Your task to perform on an android device: turn on notifications settings in the gmail app Image 0: 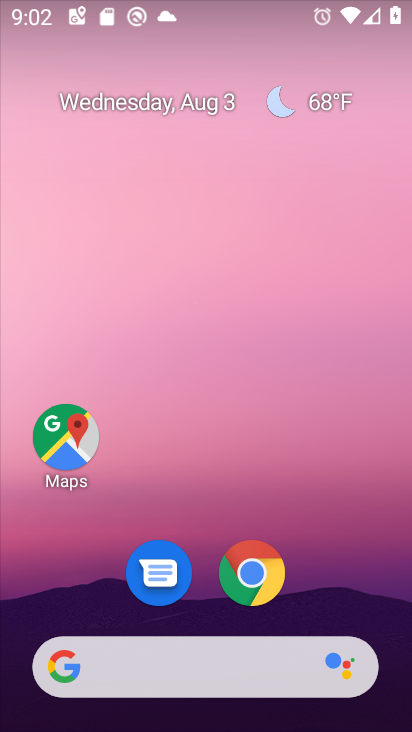
Step 0: drag from (354, 626) to (371, 46)
Your task to perform on an android device: turn on notifications settings in the gmail app Image 1: 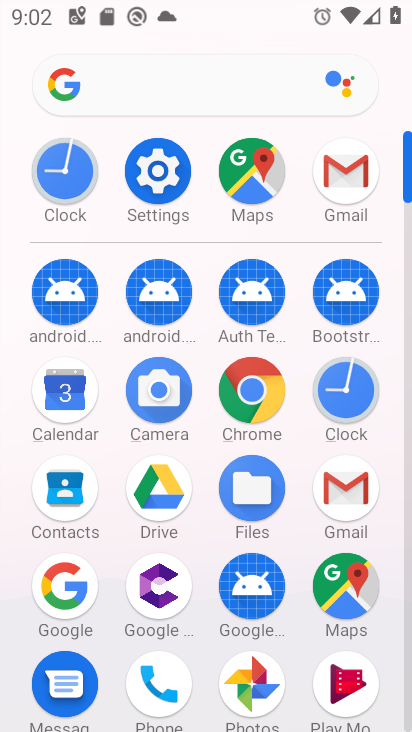
Step 1: click (349, 162)
Your task to perform on an android device: turn on notifications settings in the gmail app Image 2: 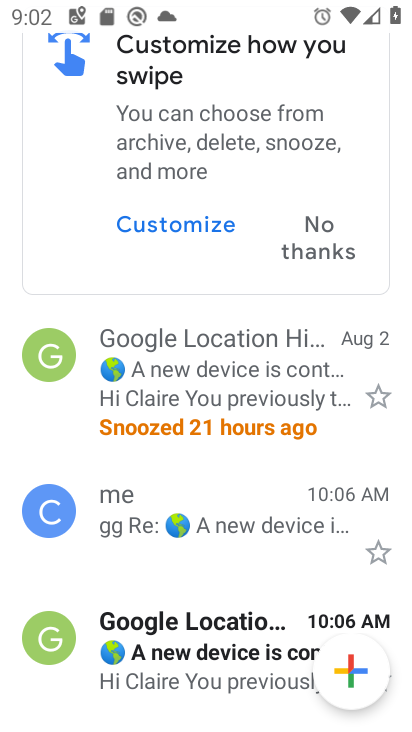
Step 2: drag from (64, 166) to (69, 341)
Your task to perform on an android device: turn on notifications settings in the gmail app Image 3: 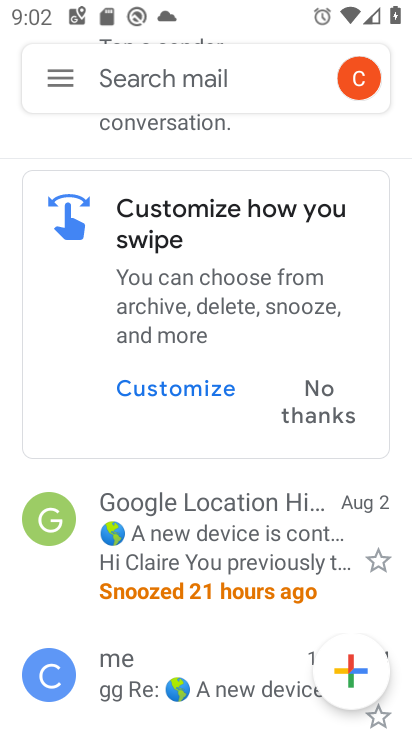
Step 3: click (62, 80)
Your task to perform on an android device: turn on notifications settings in the gmail app Image 4: 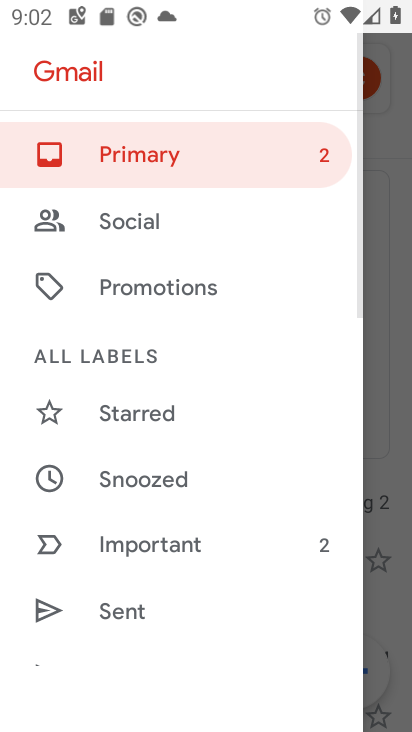
Step 4: drag from (168, 545) to (154, 119)
Your task to perform on an android device: turn on notifications settings in the gmail app Image 5: 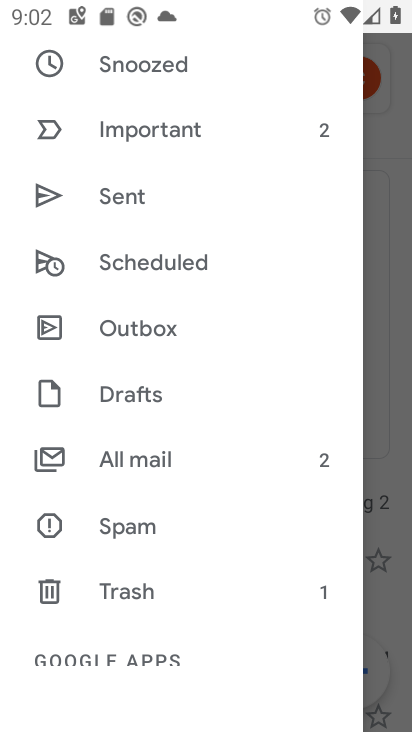
Step 5: drag from (149, 559) to (149, 137)
Your task to perform on an android device: turn on notifications settings in the gmail app Image 6: 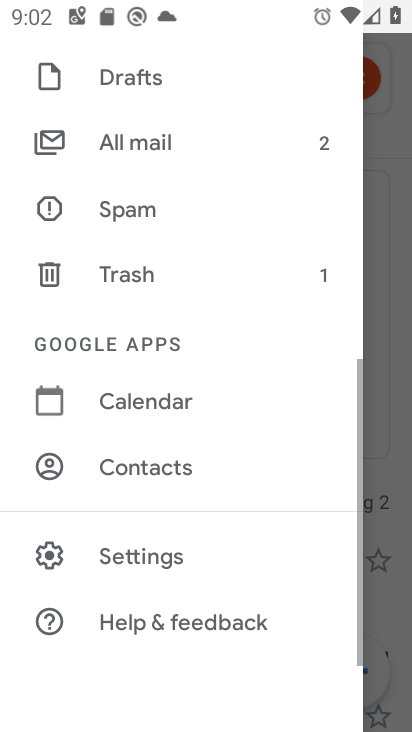
Step 6: click (123, 553)
Your task to perform on an android device: turn on notifications settings in the gmail app Image 7: 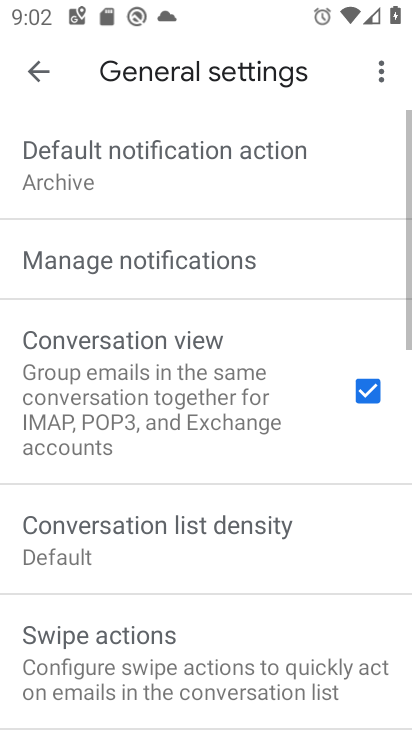
Step 7: click (122, 271)
Your task to perform on an android device: turn on notifications settings in the gmail app Image 8: 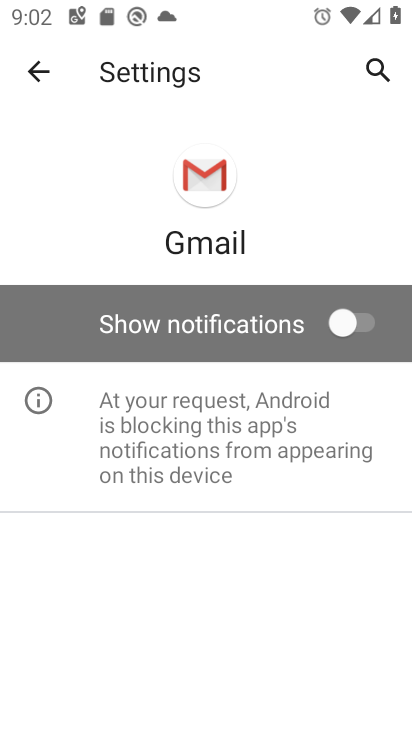
Step 8: click (360, 323)
Your task to perform on an android device: turn on notifications settings in the gmail app Image 9: 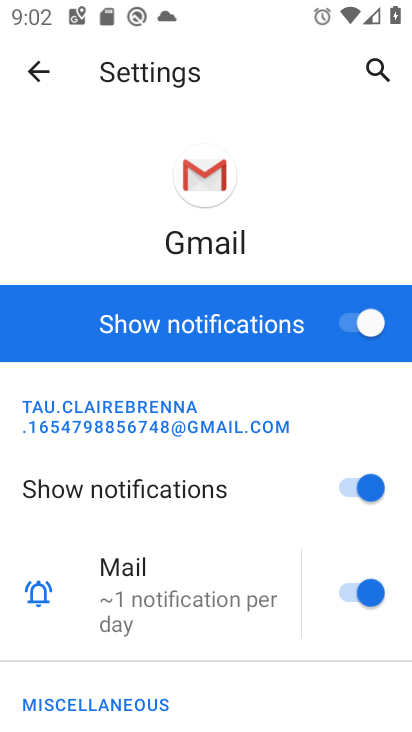
Step 9: task complete